Your task to perform on an android device: change alarm snooze length Image 0: 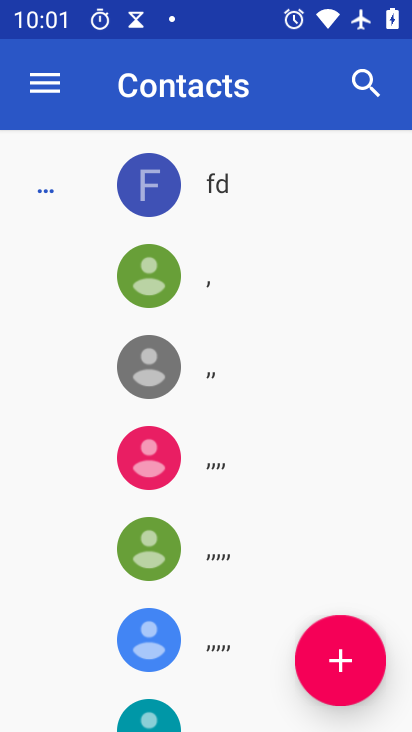
Step 0: press home button
Your task to perform on an android device: change alarm snooze length Image 1: 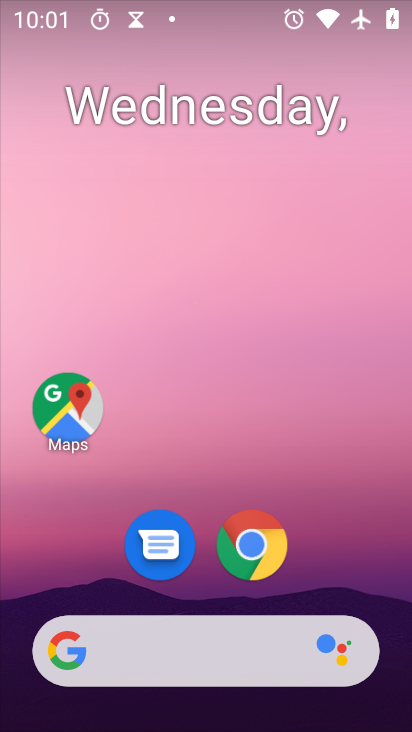
Step 1: drag from (181, 648) to (345, 111)
Your task to perform on an android device: change alarm snooze length Image 2: 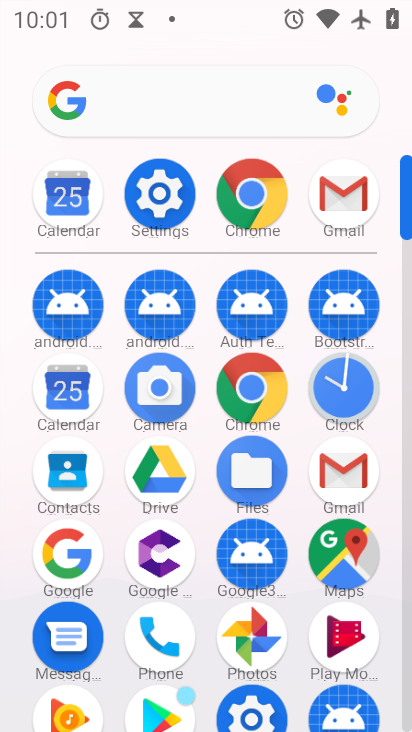
Step 2: click (335, 395)
Your task to perform on an android device: change alarm snooze length Image 3: 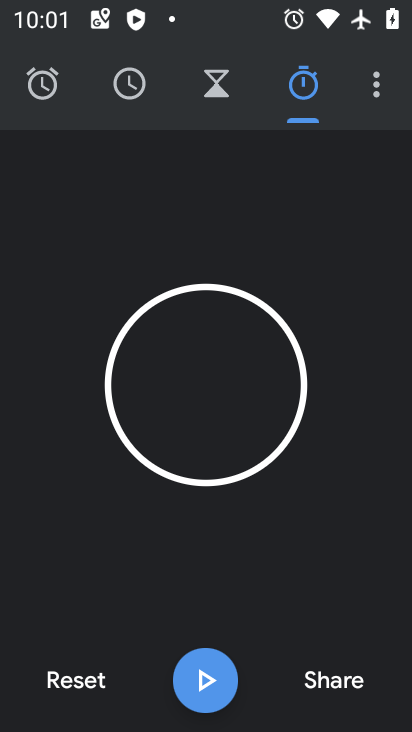
Step 3: click (374, 87)
Your task to perform on an android device: change alarm snooze length Image 4: 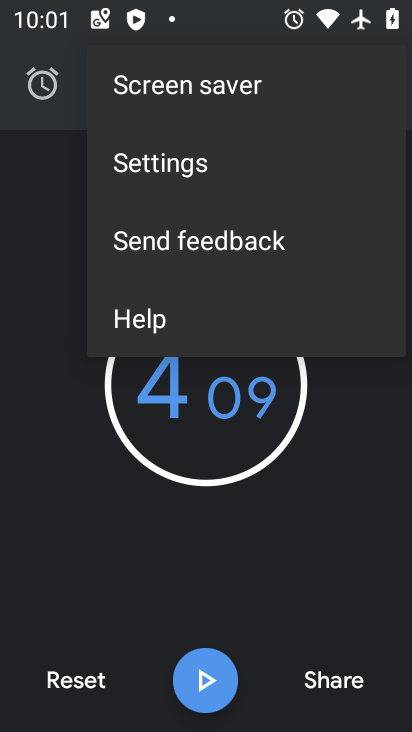
Step 4: click (200, 164)
Your task to perform on an android device: change alarm snooze length Image 5: 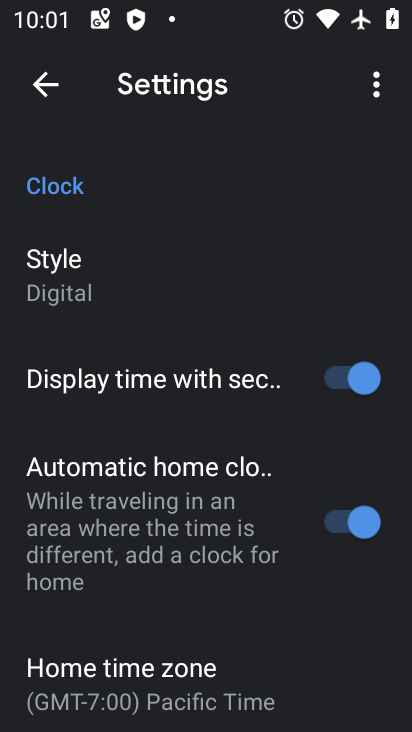
Step 5: drag from (206, 665) to (333, 150)
Your task to perform on an android device: change alarm snooze length Image 6: 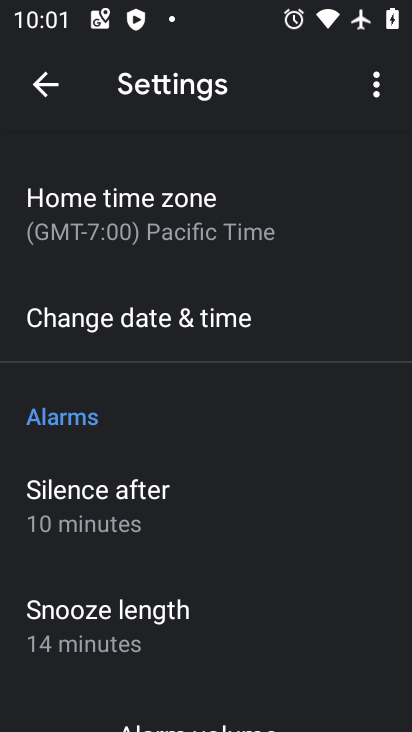
Step 6: click (148, 617)
Your task to perform on an android device: change alarm snooze length Image 7: 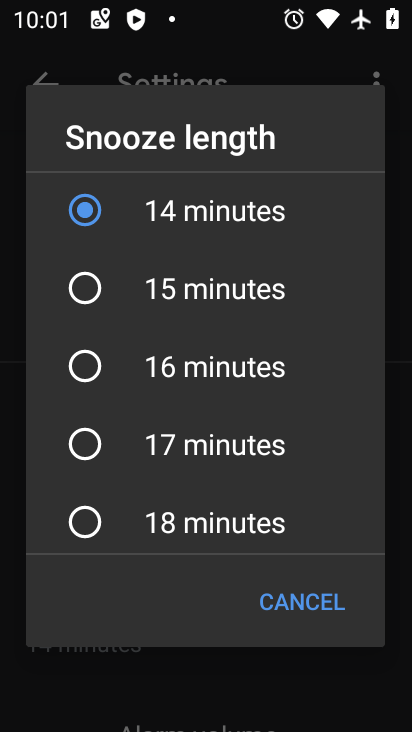
Step 7: click (81, 300)
Your task to perform on an android device: change alarm snooze length Image 8: 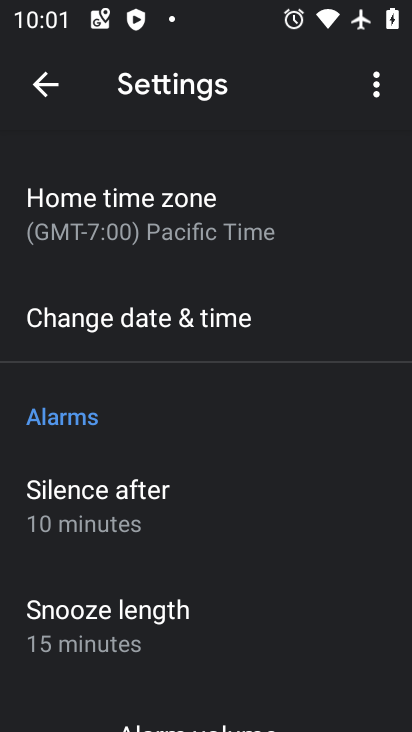
Step 8: task complete